Your task to perform on an android device: turn on location history Image 0: 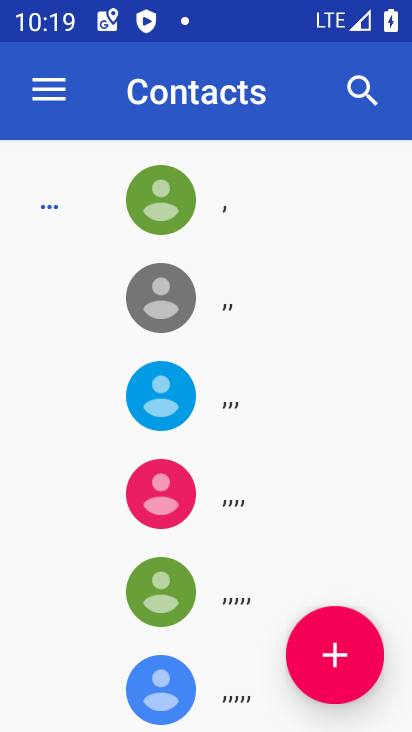
Step 0: press home button
Your task to perform on an android device: turn on location history Image 1: 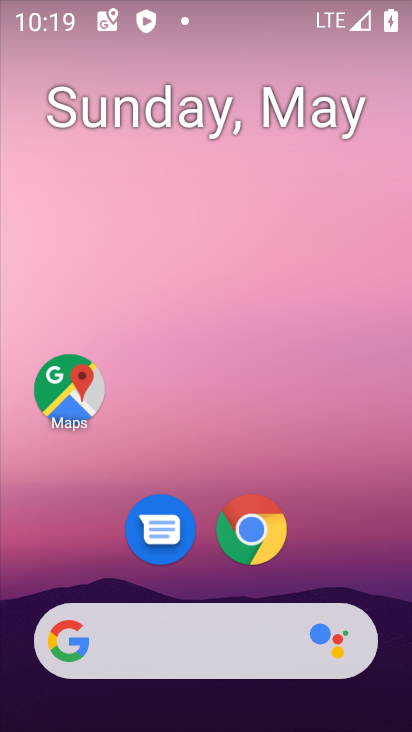
Step 1: drag from (356, 591) to (262, 101)
Your task to perform on an android device: turn on location history Image 2: 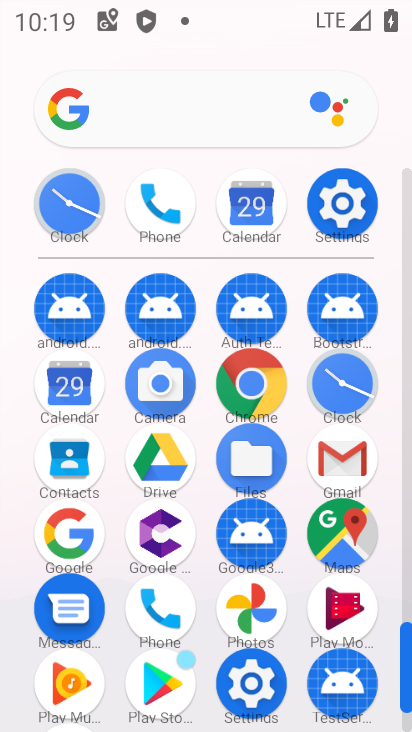
Step 2: click (342, 209)
Your task to perform on an android device: turn on location history Image 3: 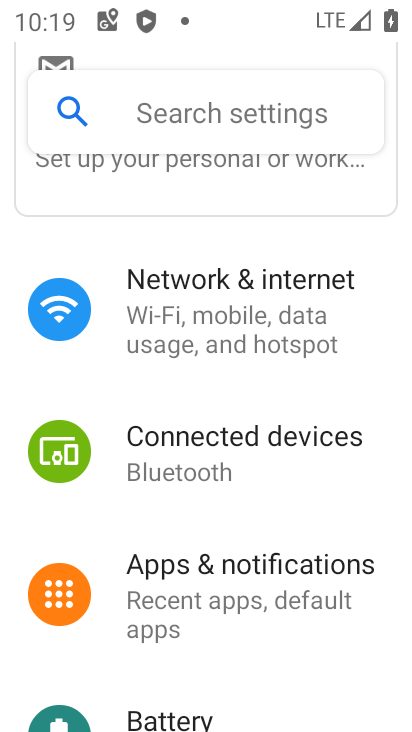
Step 3: drag from (240, 634) to (218, 303)
Your task to perform on an android device: turn on location history Image 4: 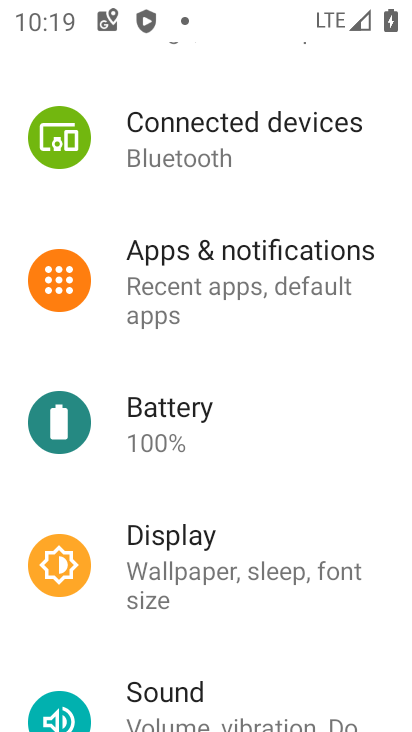
Step 4: drag from (208, 653) to (219, 366)
Your task to perform on an android device: turn on location history Image 5: 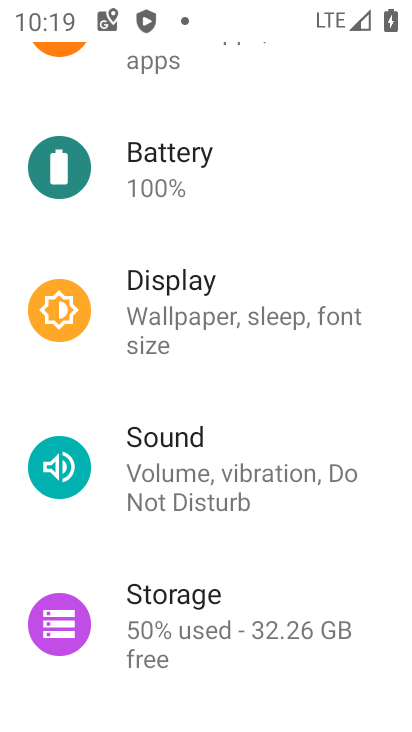
Step 5: drag from (208, 650) to (182, 98)
Your task to perform on an android device: turn on location history Image 6: 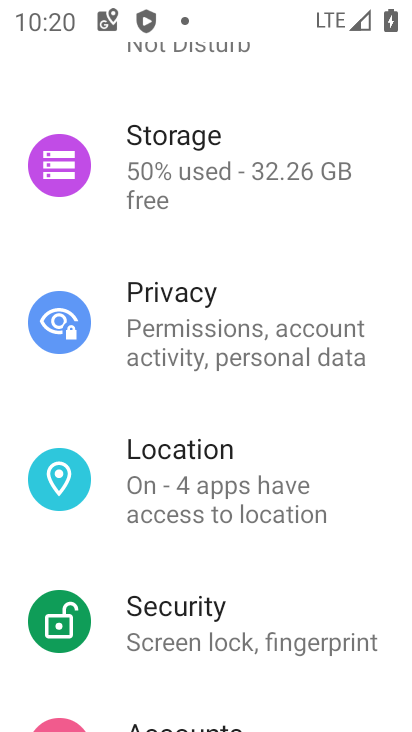
Step 6: click (267, 512)
Your task to perform on an android device: turn on location history Image 7: 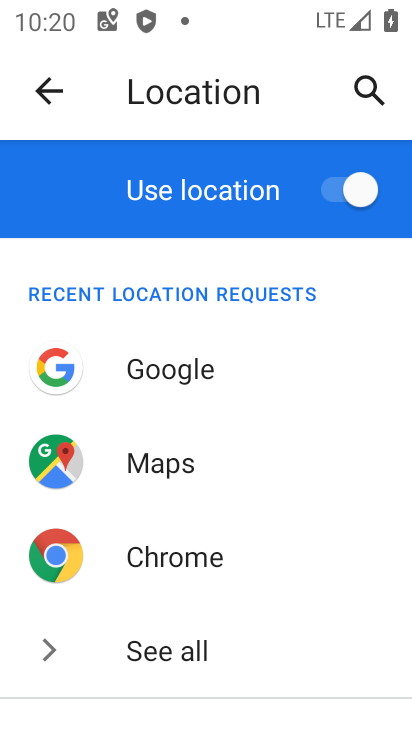
Step 7: task complete